Your task to perform on an android device: Open notification settings Image 0: 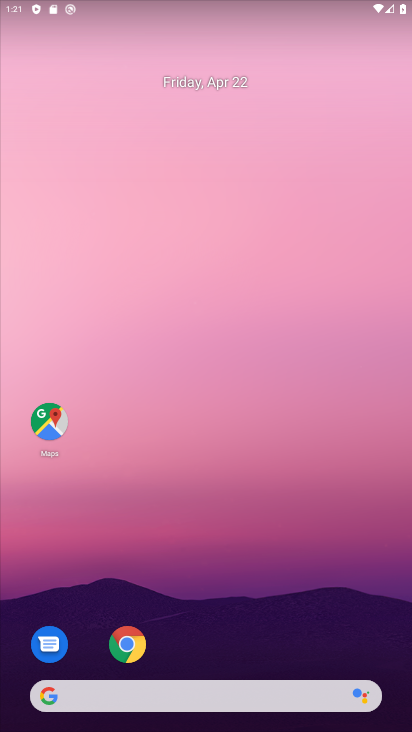
Step 0: drag from (346, 596) to (254, 213)
Your task to perform on an android device: Open notification settings Image 1: 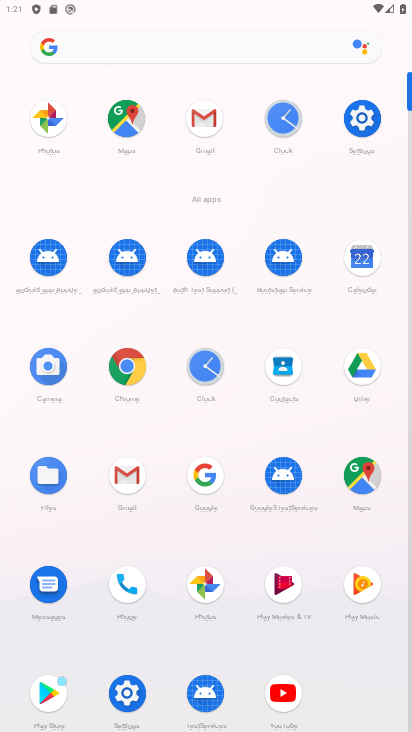
Step 1: click (361, 135)
Your task to perform on an android device: Open notification settings Image 2: 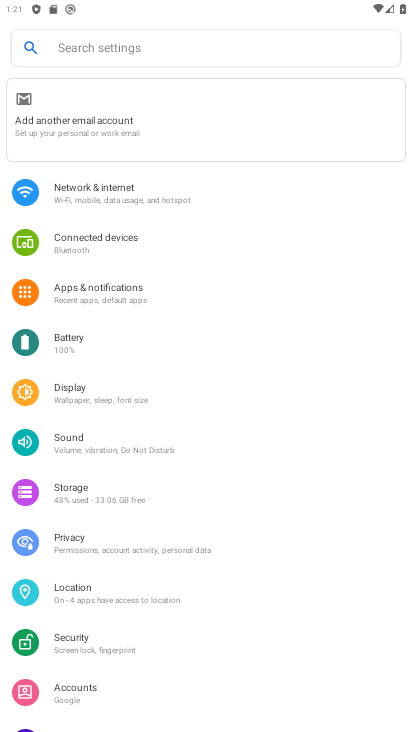
Step 2: click (174, 289)
Your task to perform on an android device: Open notification settings Image 3: 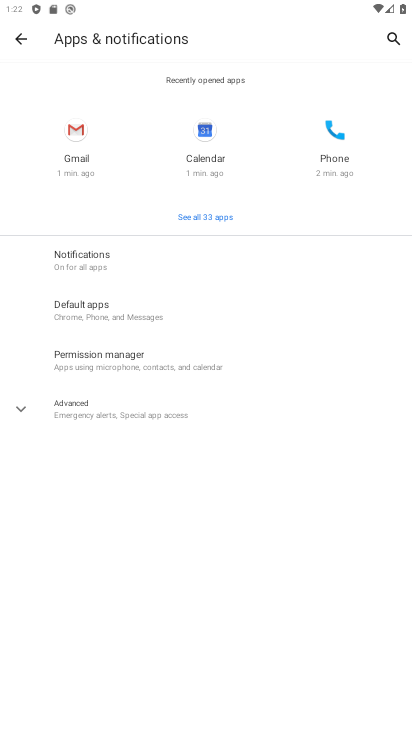
Step 3: click (153, 254)
Your task to perform on an android device: Open notification settings Image 4: 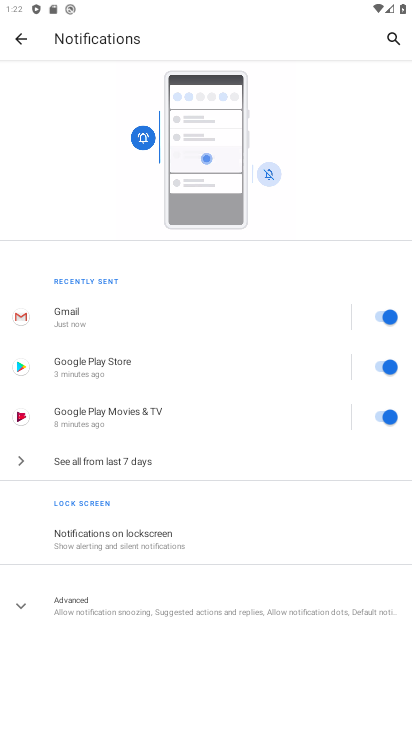
Step 4: task complete